Your task to perform on an android device: turn on location history Image 0: 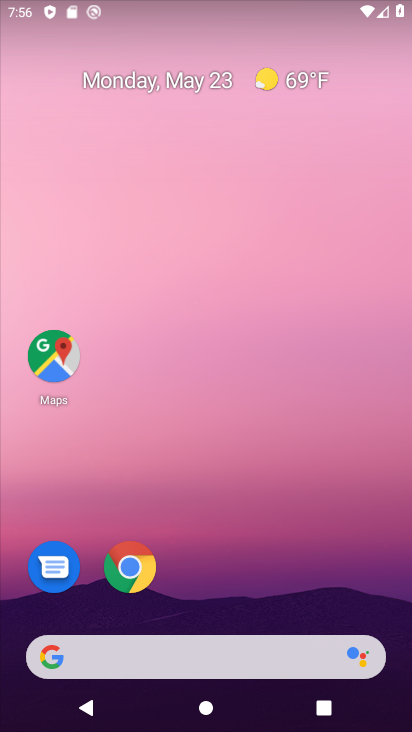
Step 0: drag from (204, 610) to (283, 129)
Your task to perform on an android device: turn on location history Image 1: 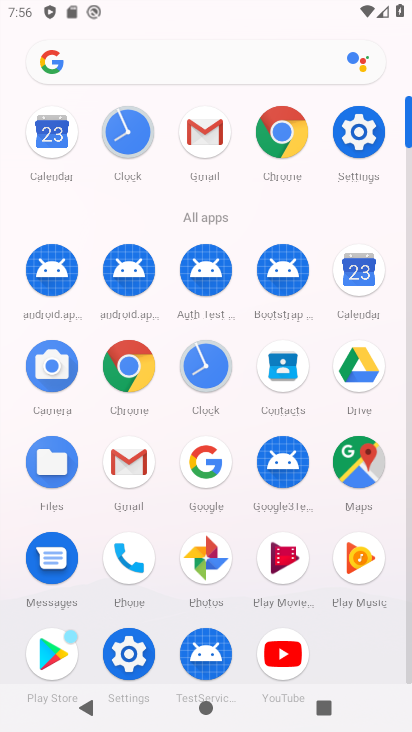
Step 1: click (119, 646)
Your task to perform on an android device: turn on location history Image 2: 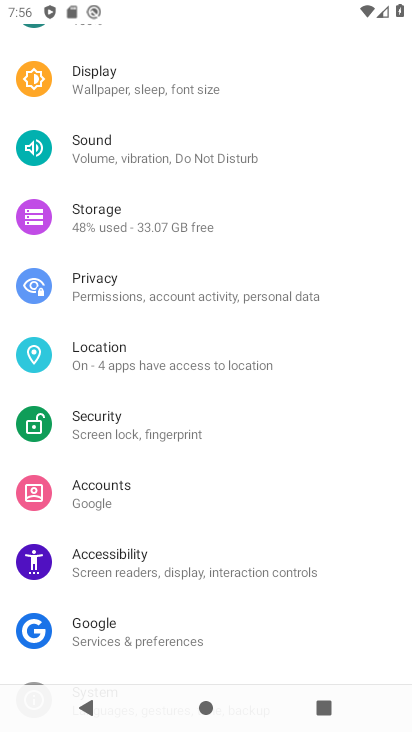
Step 2: click (125, 365)
Your task to perform on an android device: turn on location history Image 3: 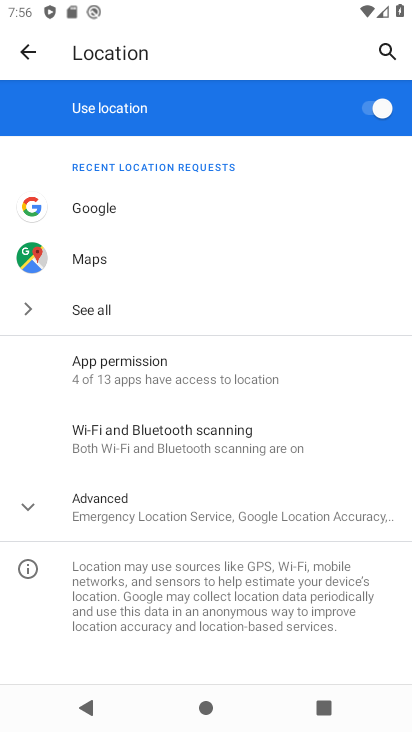
Step 3: click (181, 512)
Your task to perform on an android device: turn on location history Image 4: 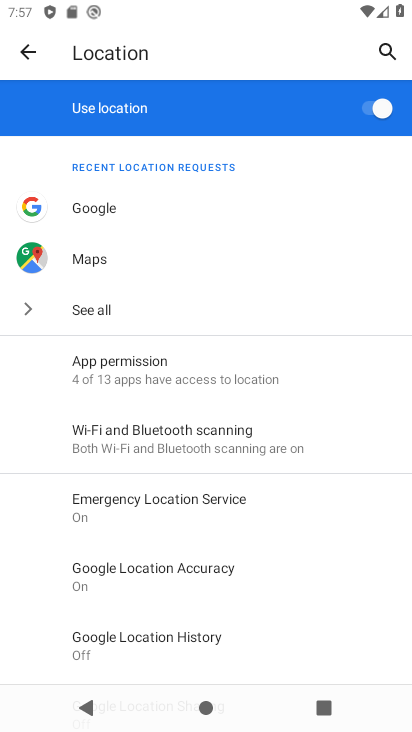
Step 4: click (166, 649)
Your task to perform on an android device: turn on location history Image 5: 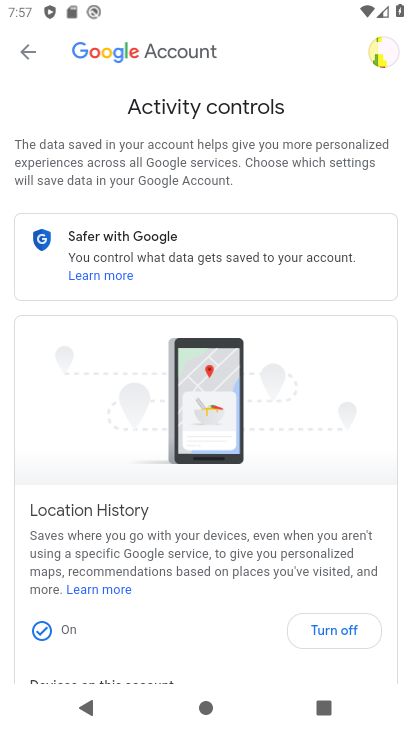
Step 5: task complete